Your task to perform on an android device: show emergency info Image 0: 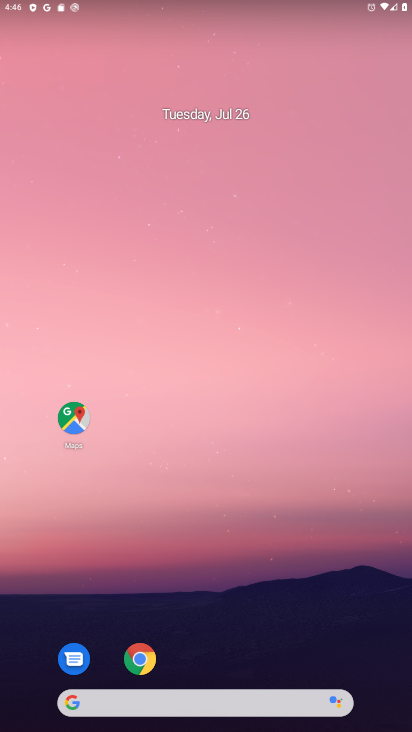
Step 0: drag from (237, 648) to (262, 30)
Your task to perform on an android device: show emergency info Image 1: 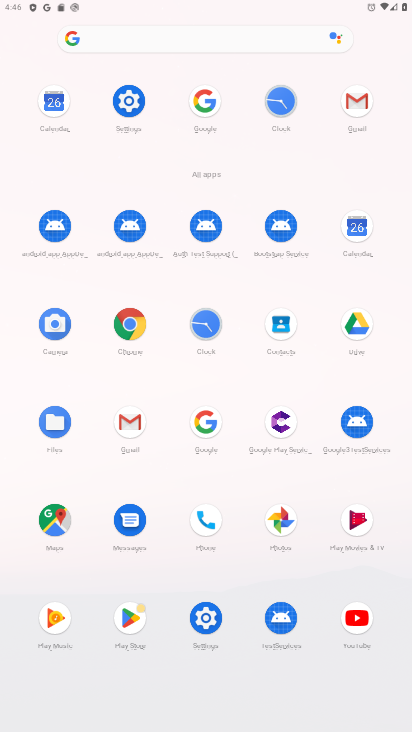
Step 1: click (200, 617)
Your task to perform on an android device: show emergency info Image 2: 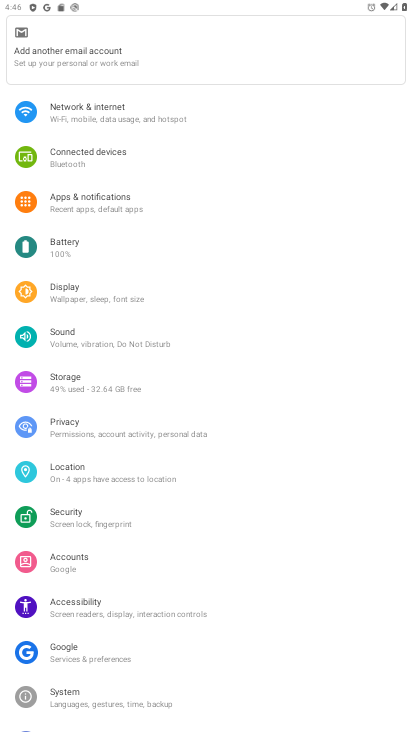
Step 2: drag from (160, 687) to (201, 259)
Your task to perform on an android device: show emergency info Image 3: 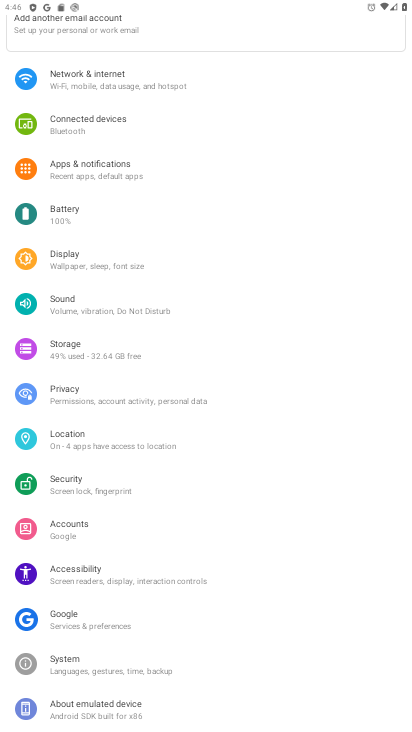
Step 3: drag from (147, 703) to (191, 274)
Your task to perform on an android device: show emergency info Image 4: 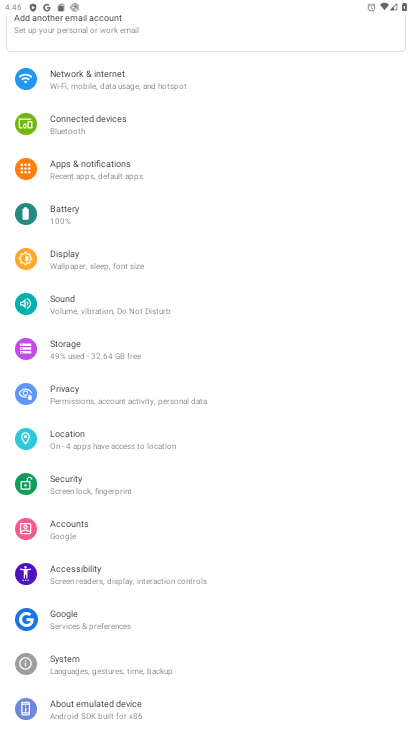
Step 4: click (161, 695)
Your task to perform on an android device: show emergency info Image 5: 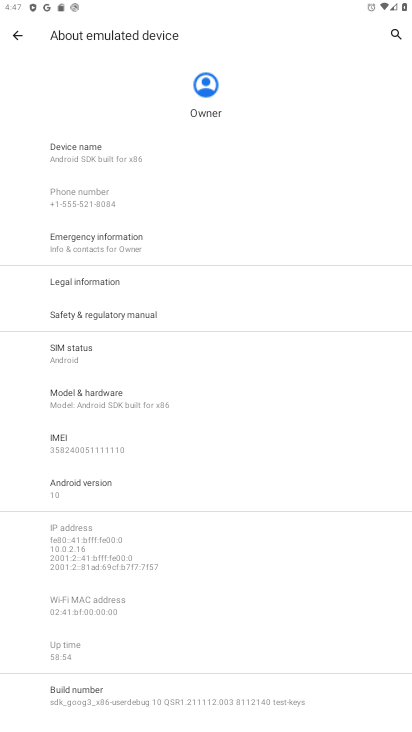
Step 5: click (124, 243)
Your task to perform on an android device: show emergency info Image 6: 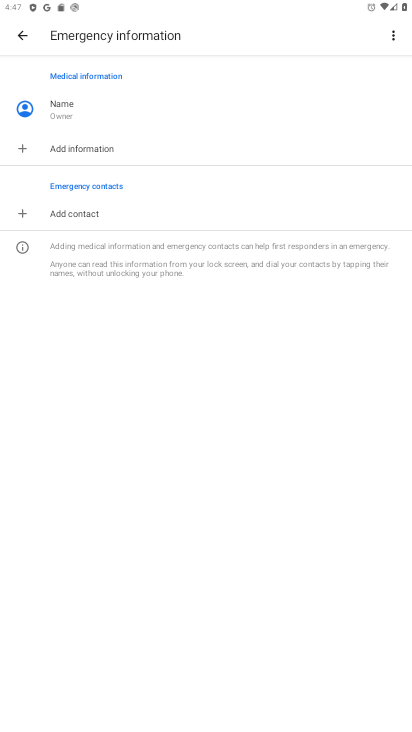
Step 6: task complete